Your task to perform on an android device: open app "Move to iOS" Image 0: 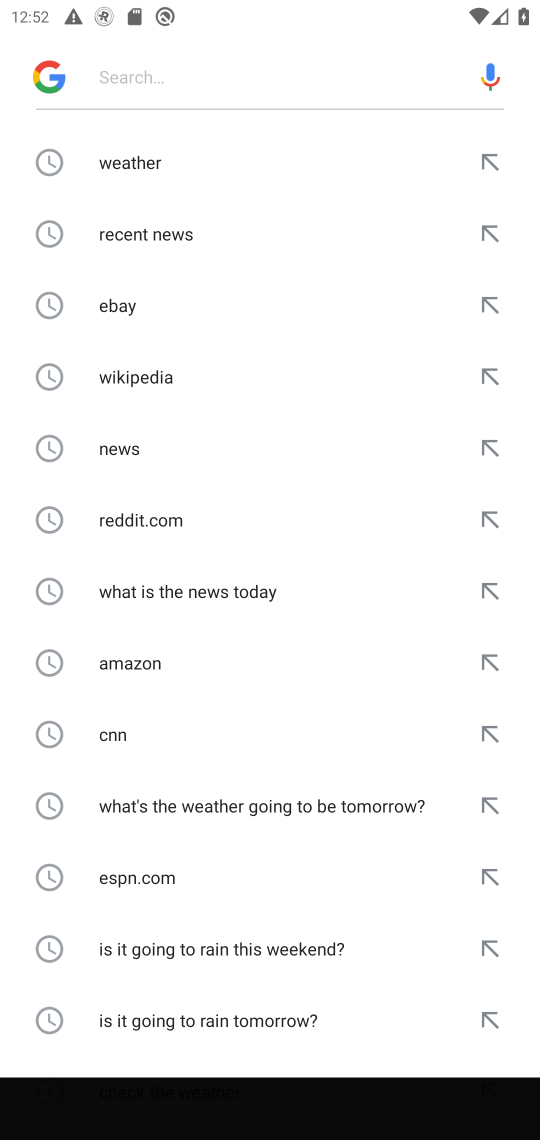
Step 0: press home button
Your task to perform on an android device: open app "Move to iOS" Image 1: 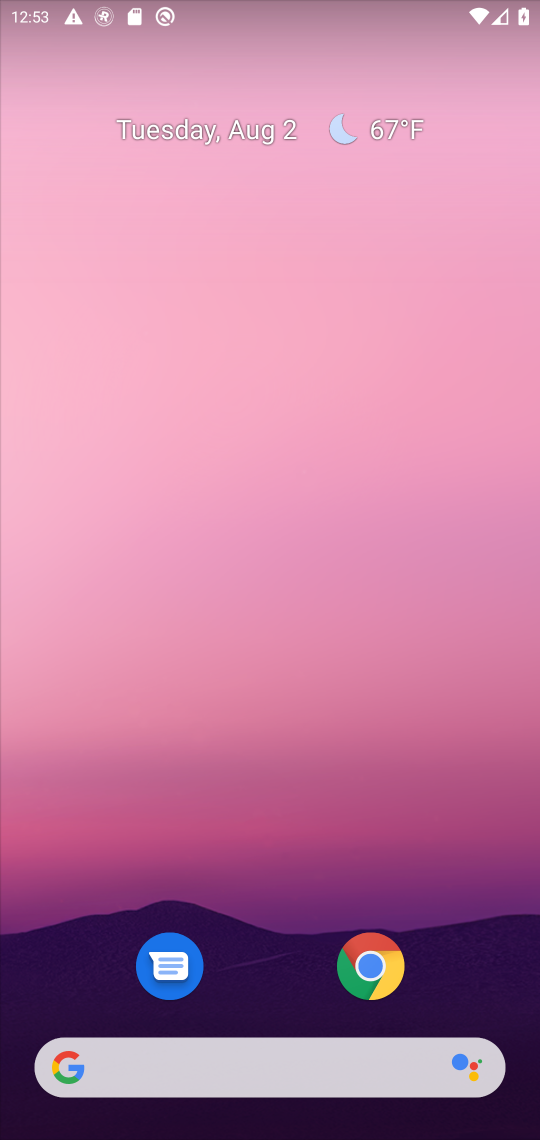
Step 1: drag from (278, 750) to (309, 86)
Your task to perform on an android device: open app "Move to iOS" Image 2: 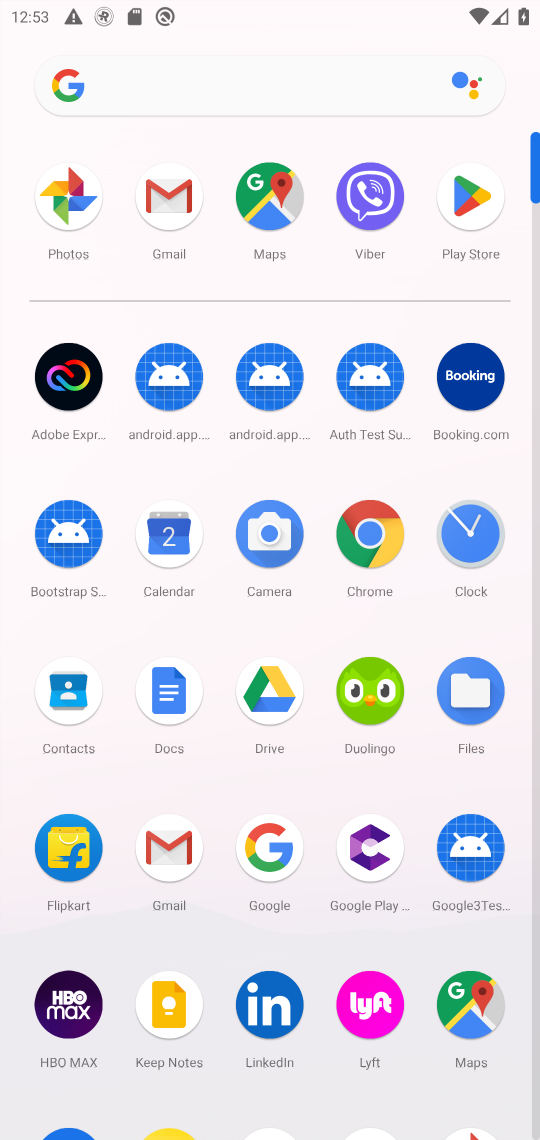
Step 2: click (458, 211)
Your task to perform on an android device: open app "Move to iOS" Image 3: 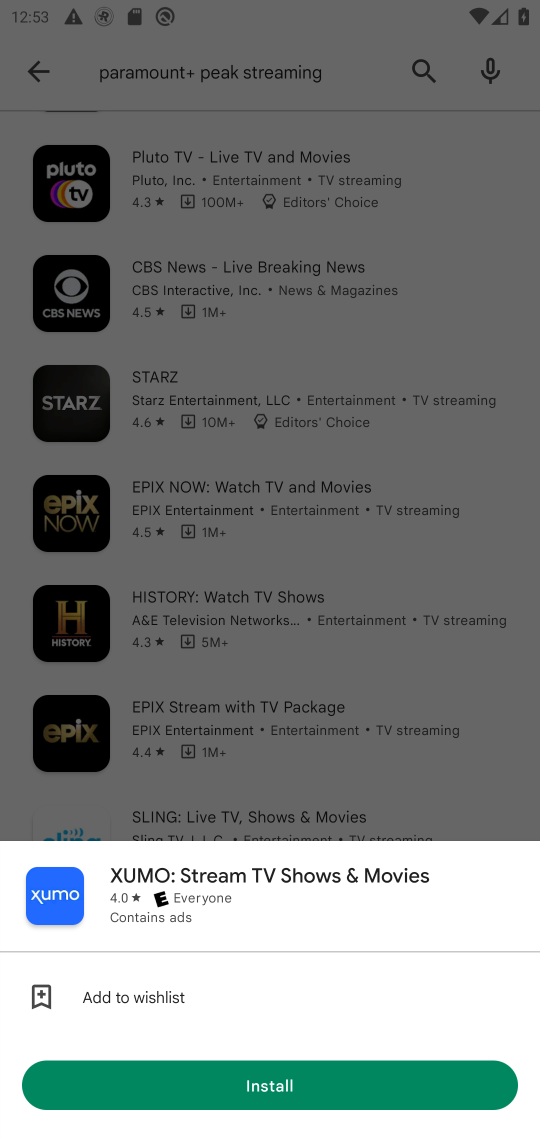
Step 3: press back button
Your task to perform on an android device: open app "Move to iOS" Image 4: 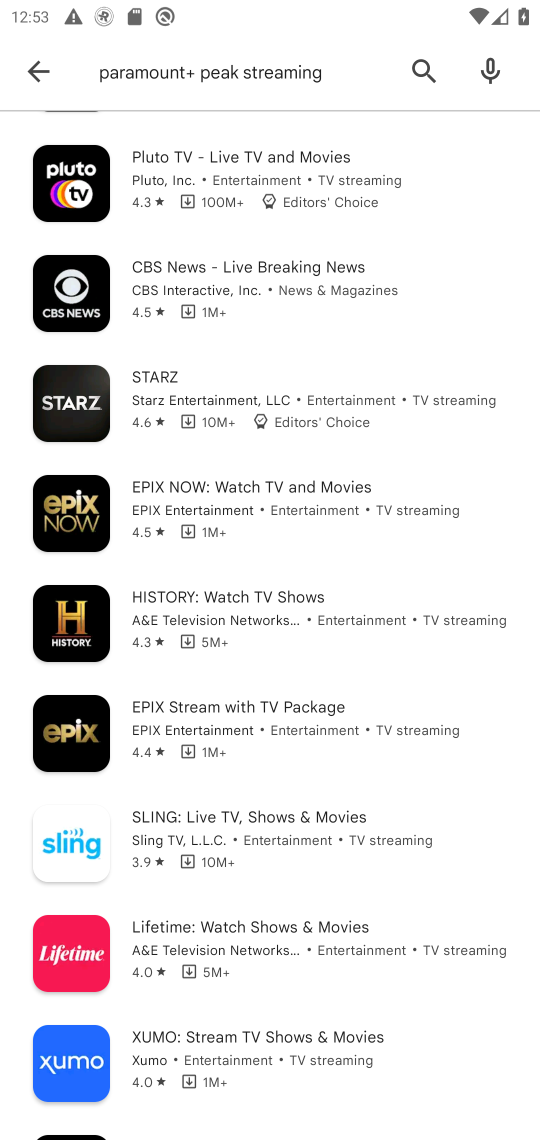
Step 4: click (423, 69)
Your task to perform on an android device: open app "Move to iOS" Image 5: 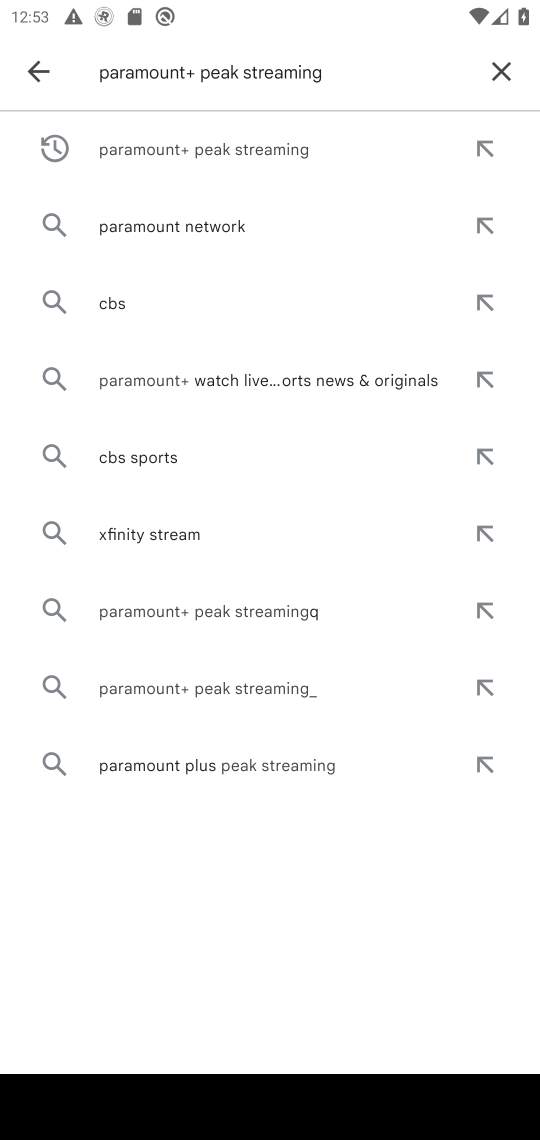
Step 5: click (503, 66)
Your task to perform on an android device: open app "Move to iOS" Image 6: 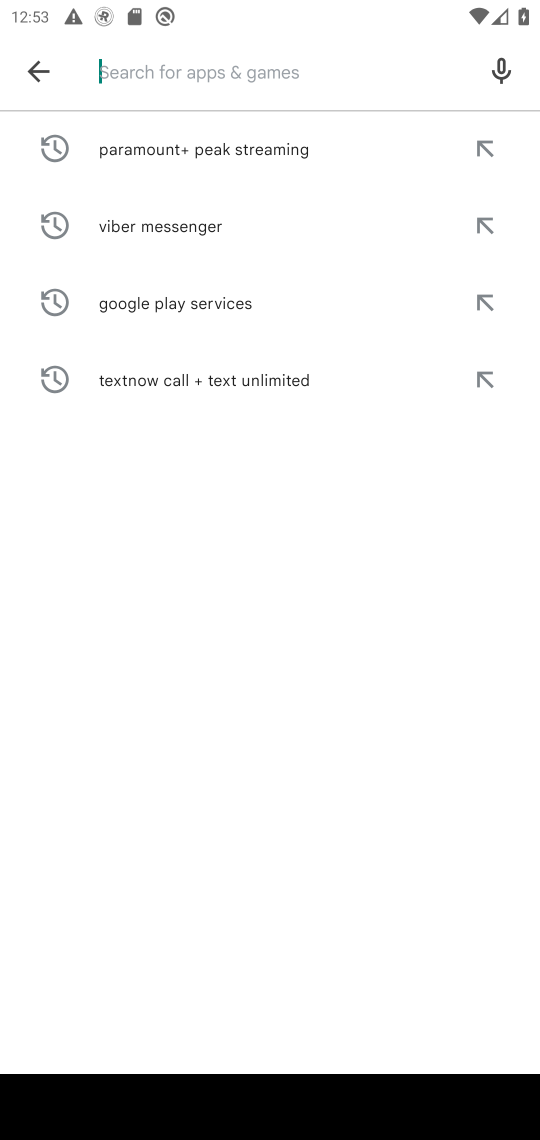
Step 6: click (338, 85)
Your task to perform on an android device: open app "Move to iOS" Image 7: 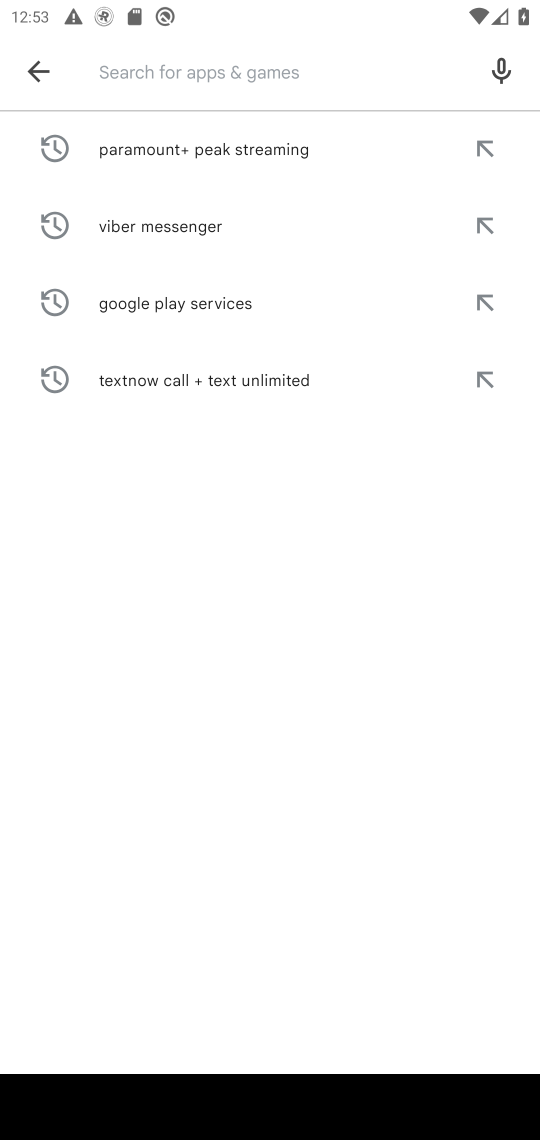
Step 7: type "move to ios "
Your task to perform on an android device: open app "Move to iOS" Image 8: 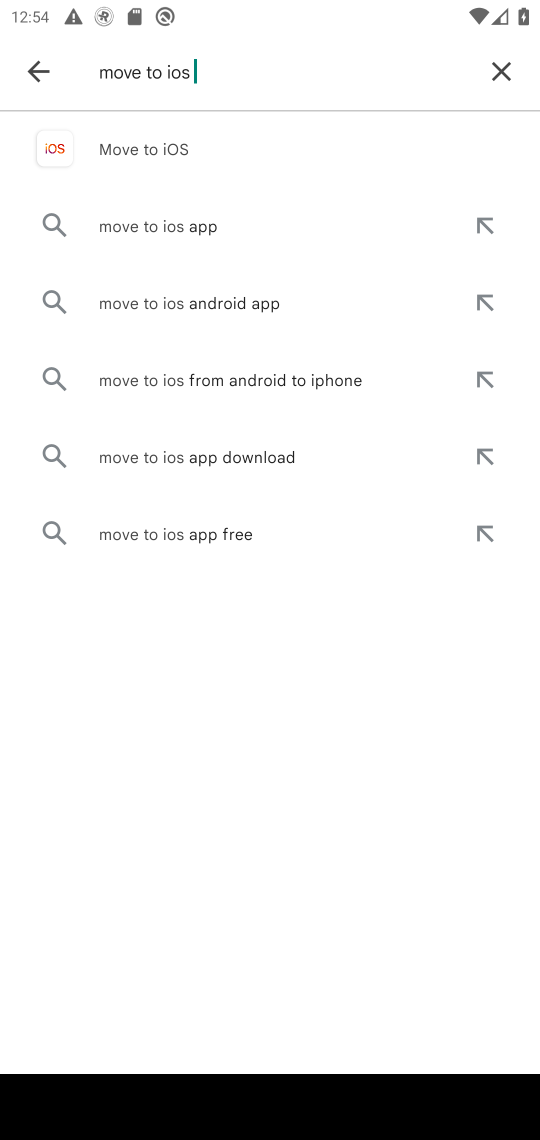
Step 8: click (200, 145)
Your task to perform on an android device: open app "Move to iOS" Image 9: 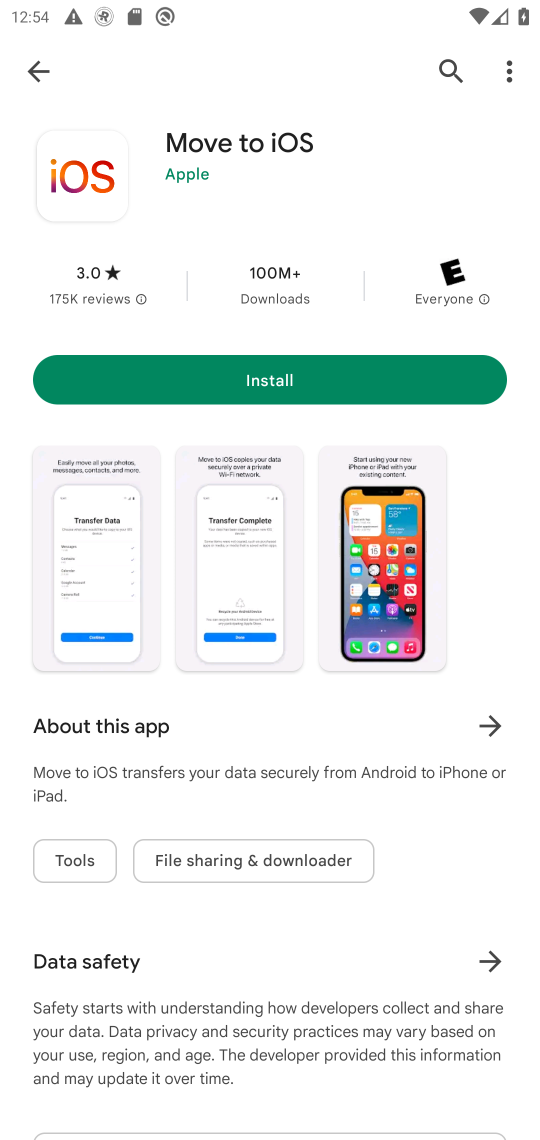
Step 9: task complete